Your task to perform on an android device: turn off notifications settings in the gmail app Image 0: 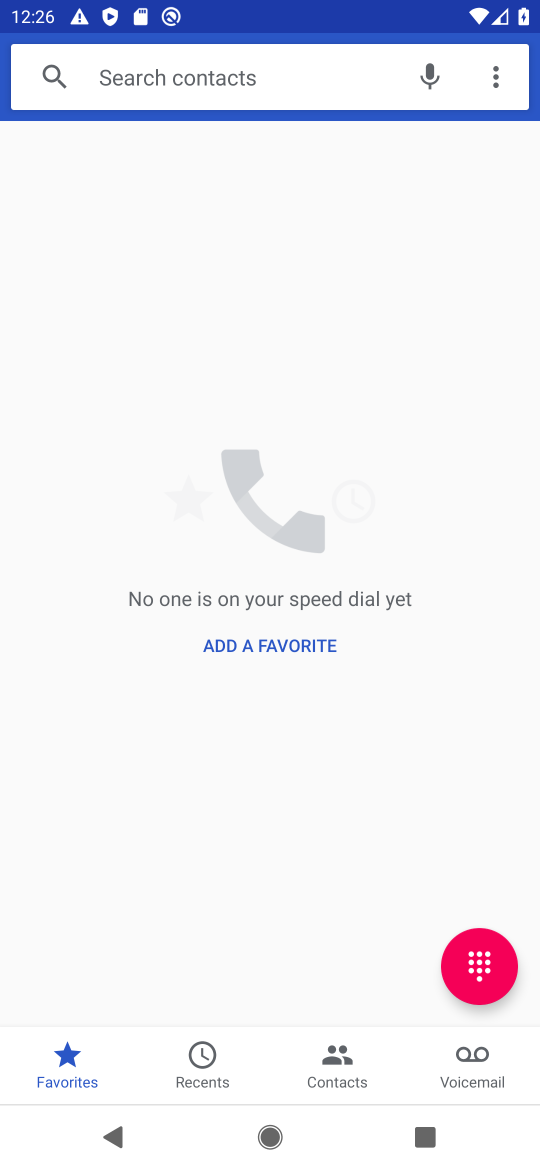
Step 0: press back button
Your task to perform on an android device: turn off notifications settings in the gmail app Image 1: 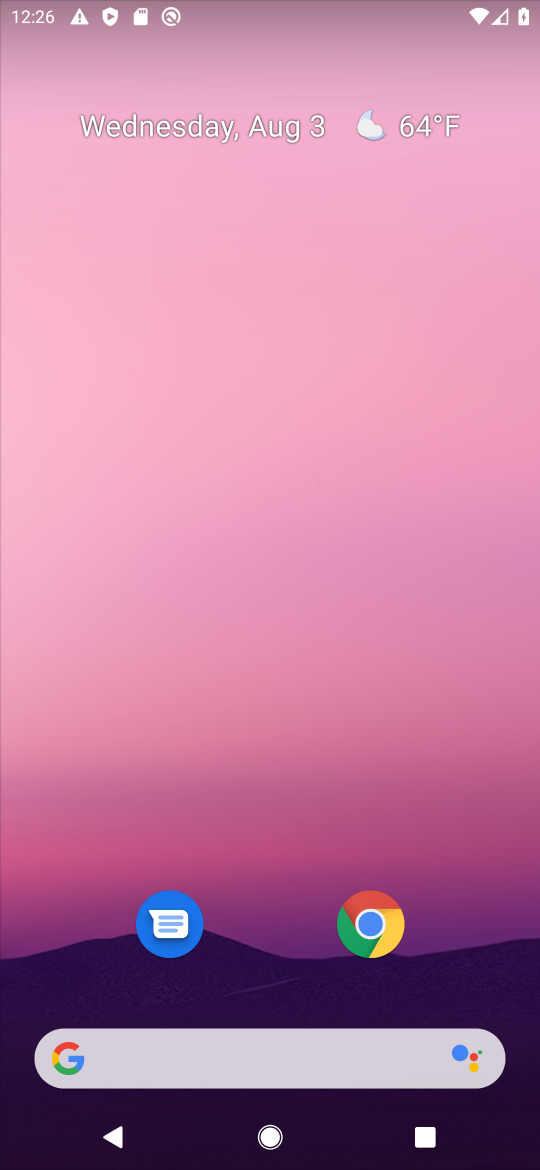
Step 1: drag from (283, 918) to (280, 12)
Your task to perform on an android device: turn off notifications settings in the gmail app Image 2: 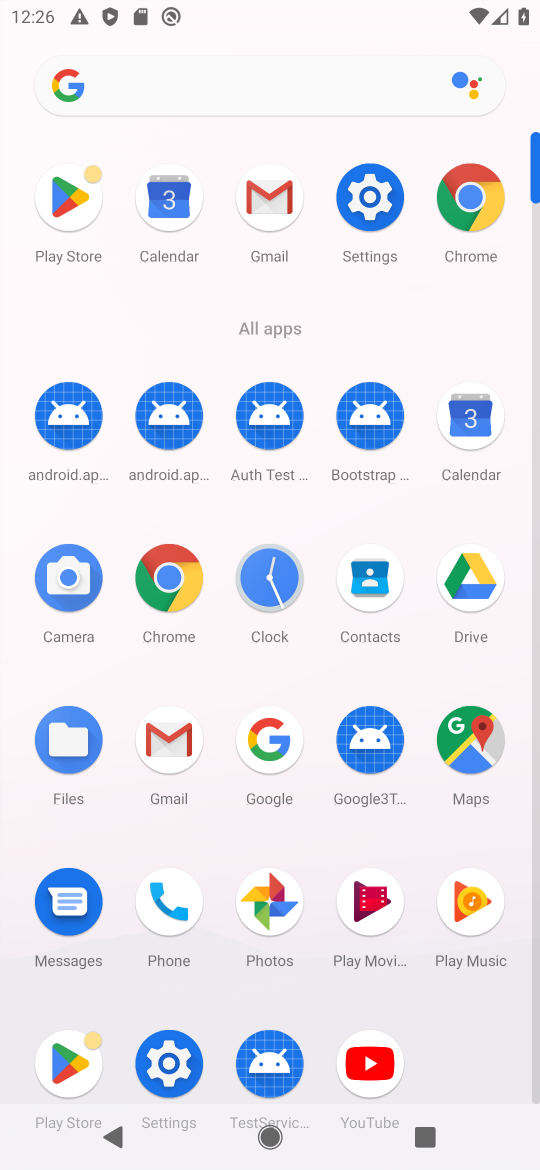
Step 2: click (238, 214)
Your task to perform on an android device: turn off notifications settings in the gmail app Image 3: 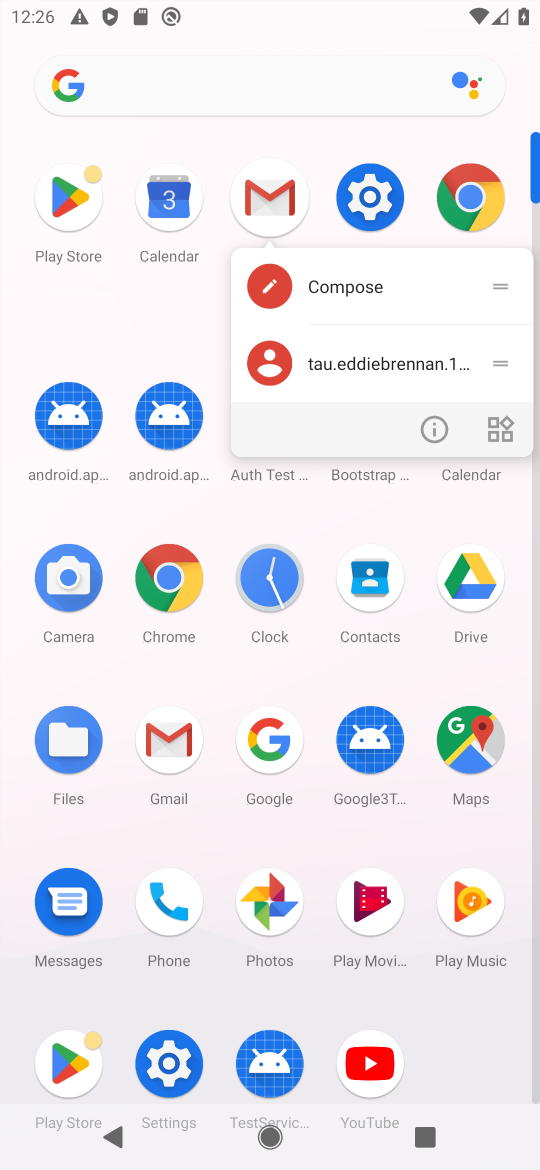
Step 3: click (442, 429)
Your task to perform on an android device: turn off notifications settings in the gmail app Image 4: 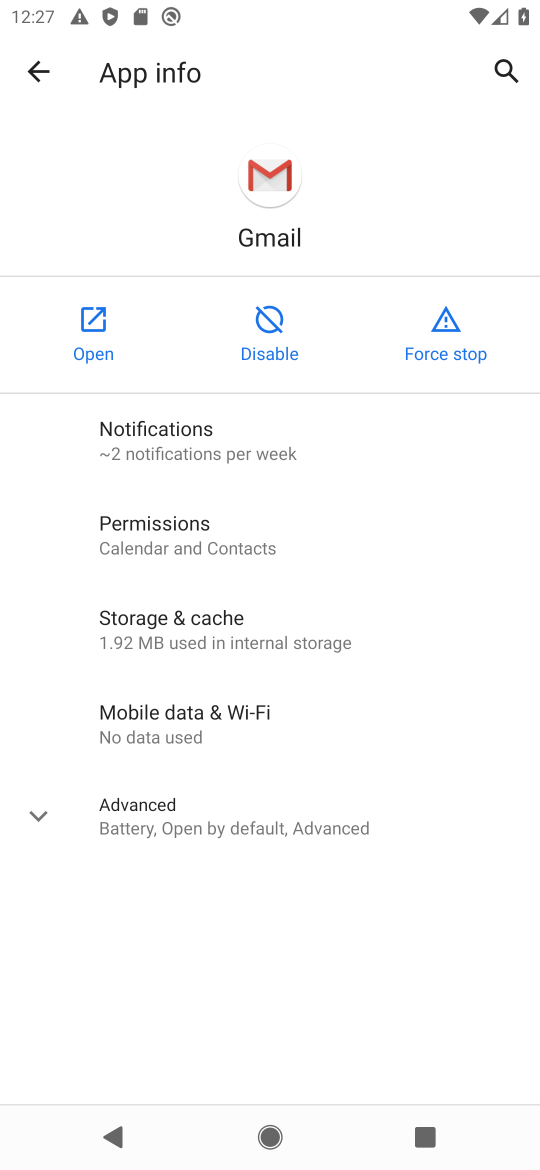
Step 4: click (166, 428)
Your task to perform on an android device: turn off notifications settings in the gmail app Image 5: 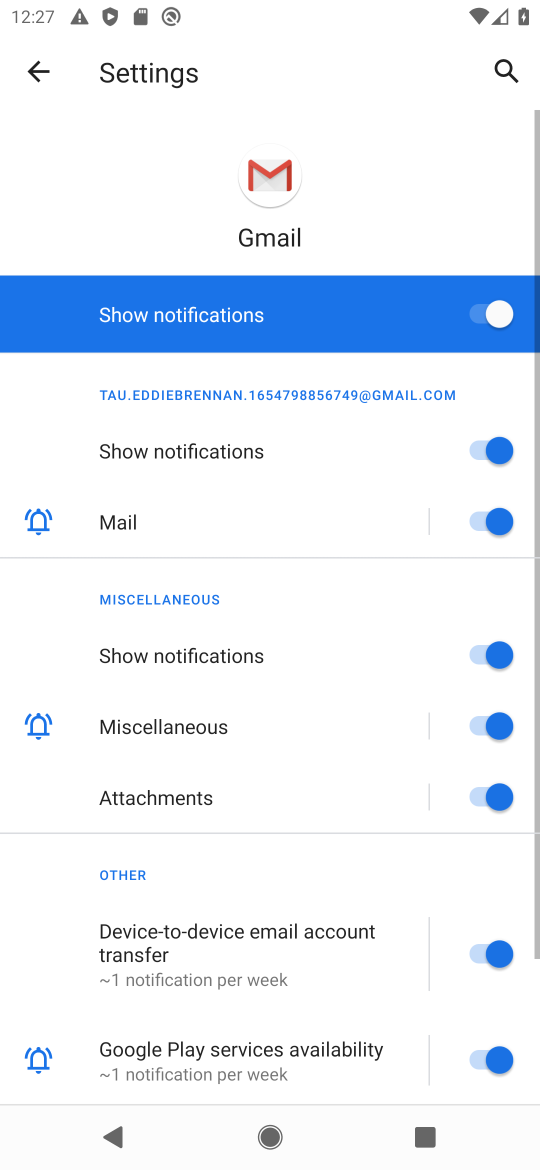
Step 5: click (504, 309)
Your task to perform on an android device: turn off notifications settings in the gmail app Image 6: 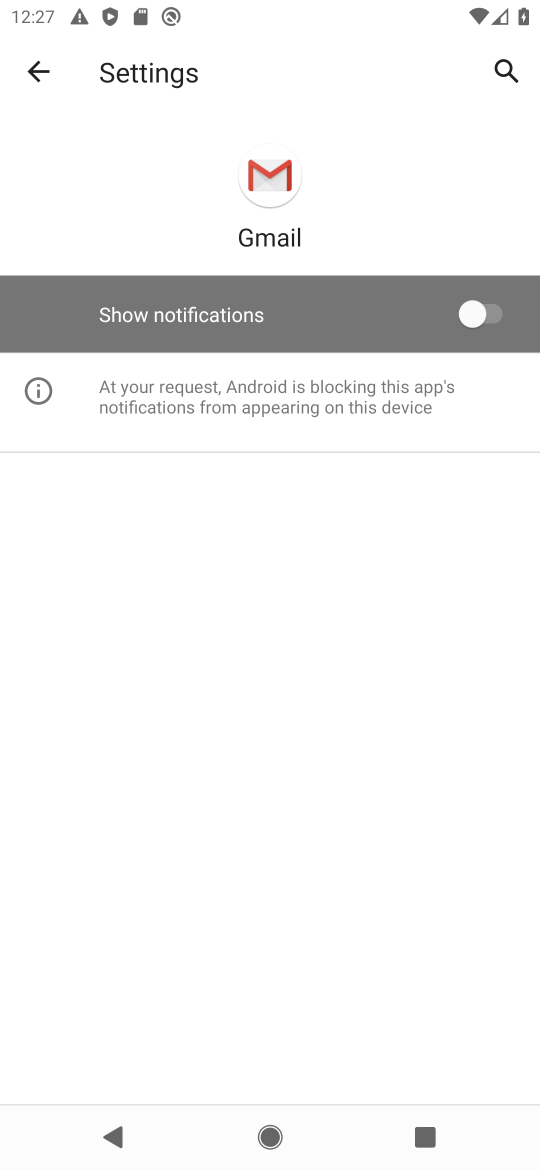
Step 6: task complete